Your task to perform on an android device: change the clock display to show seconds Image 0: 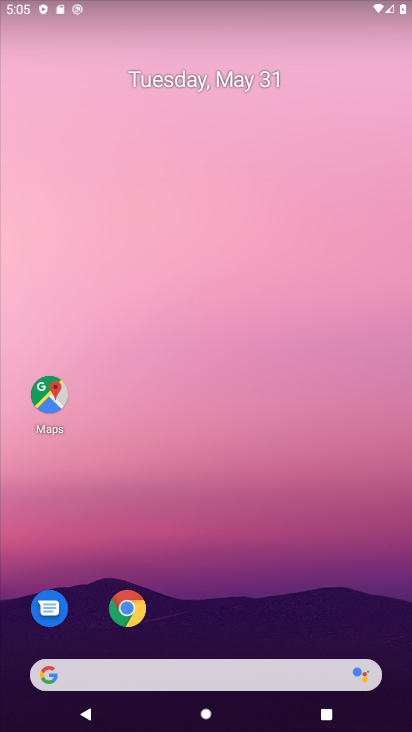
Step 0: drag from (188, 651) to (199, 311)
Your task to perform on an android device: change the clock display to show seconds Image 1: 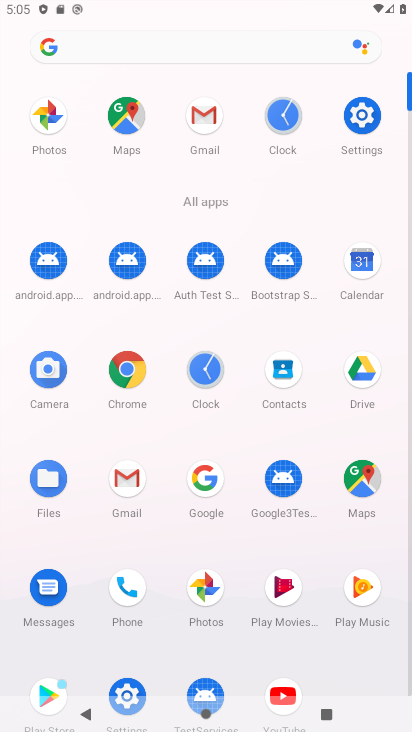
Step 1: click (298, 126)
Your task to perform on an android device: change the clock display to show seconds Image 2: 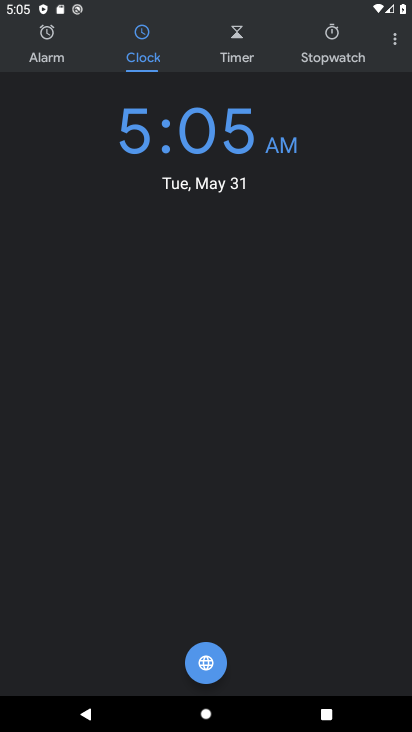
Step 2: click (400, 38)
Your task to perform on an android device: change the clock display to show seconds Image 3: 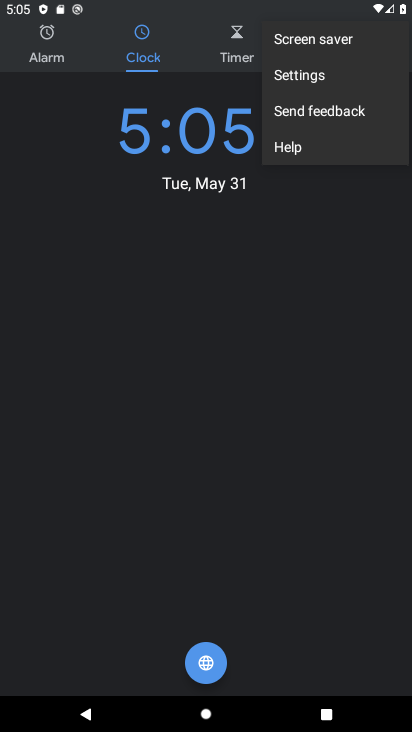
Step 3: click (312, 65)
Your task to perform on an android device: change the clock display to show seconds Image 4: 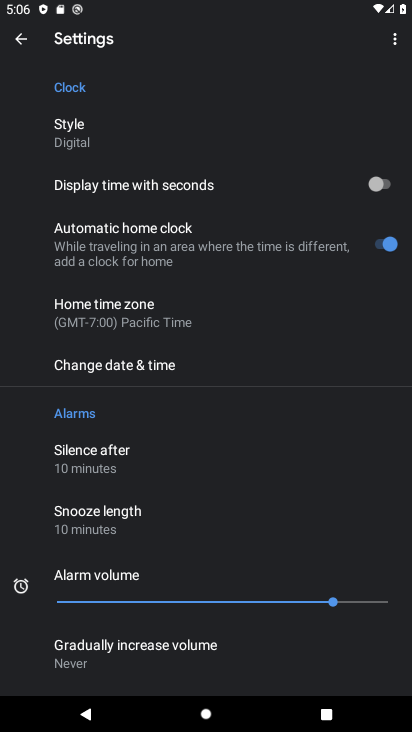
Step 4: click (390, 187)
Your task to perform on an android device: change the clock display to show seconds Image 5: 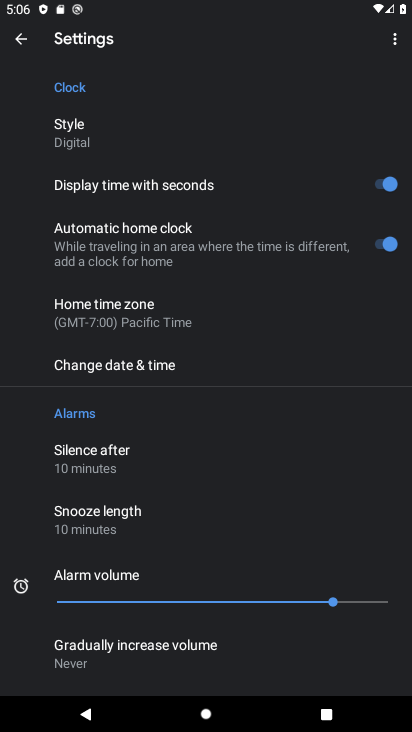
Step 5: task complete